Your task to perform on an android device: Go to display settings Image 0: 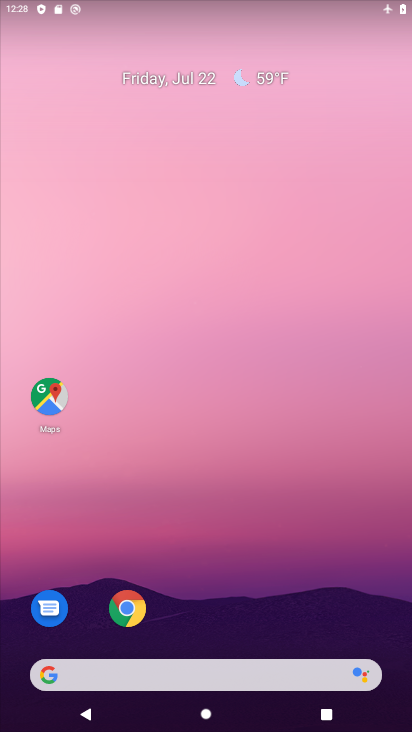
Step 0: drag from (209, 627) to (191, 136)
Your task to perform on an android device: Go to display settings Image 1: 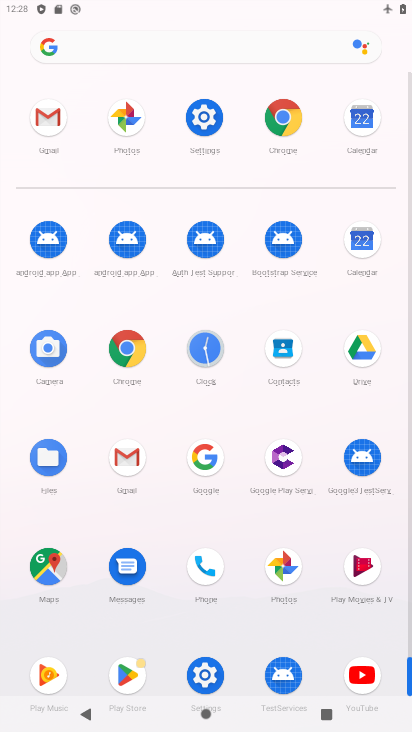
Step 1: click (202, 665)
Your task to perform on an android device: Go to display settings Image 2: 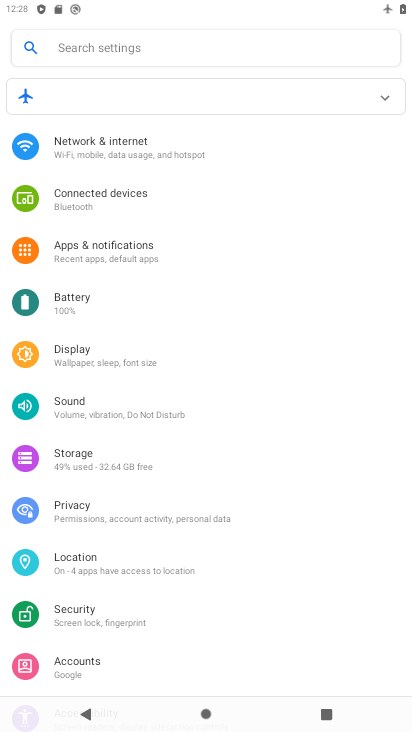
Step 2: click (107, 344)
Your task to perform on an android device: Go to display settings Image 3: 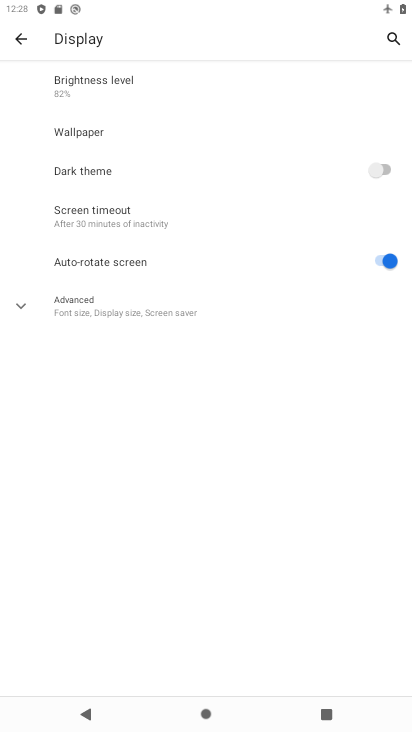
Step 3: task complete